Your task to perform on an android device: turn off smart reply in the gmail app Image 0: 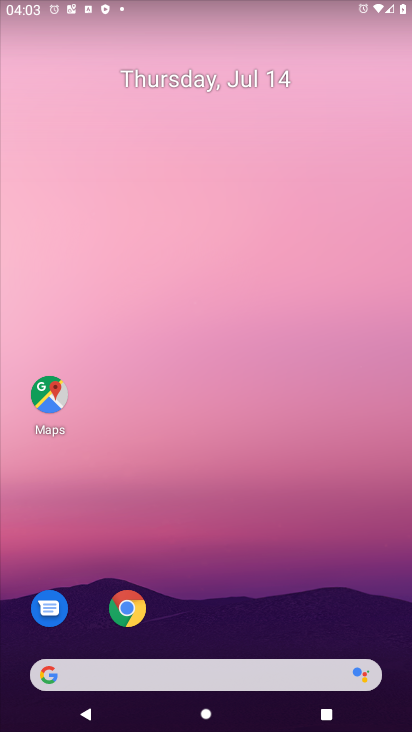
Step 0: drag from (397, 635) to (358, 90)
Your task to perform on an android device: turn off smart reply in the gmail app Image 1: 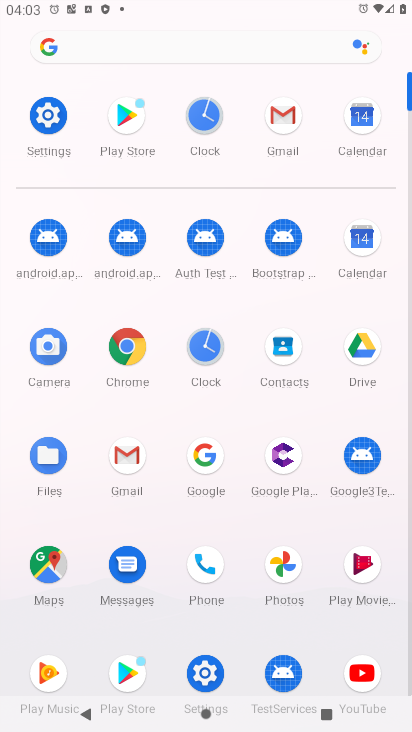
Step 1: click (123, 451)
Your task to perform on an android device: turn off smart reply in the gmail app Image 2: 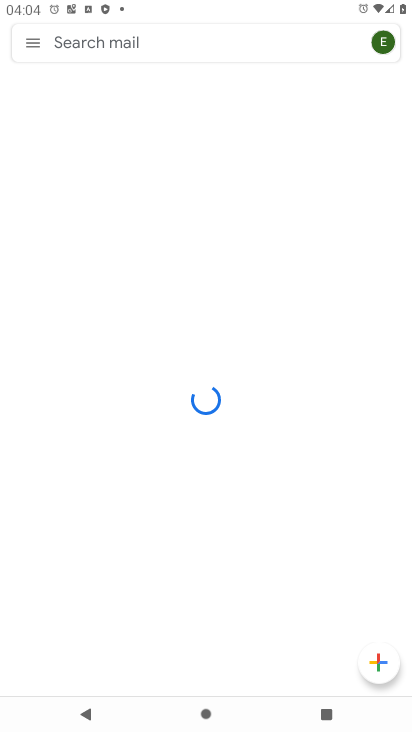
Step 2: click (30, 46)
Your task to perform on an android device: turn off smart reply in the gmail app Image 3: 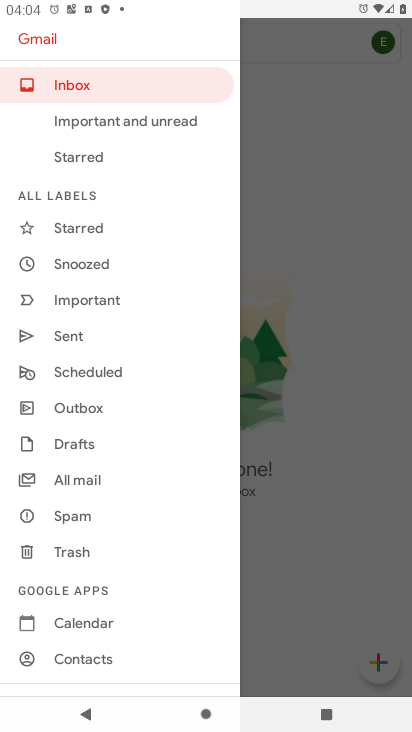
Step 3: drag from (161, 652) to (166, 392)
Your task to perform on an android device: turn off smart reply in the gmail app Image 4: 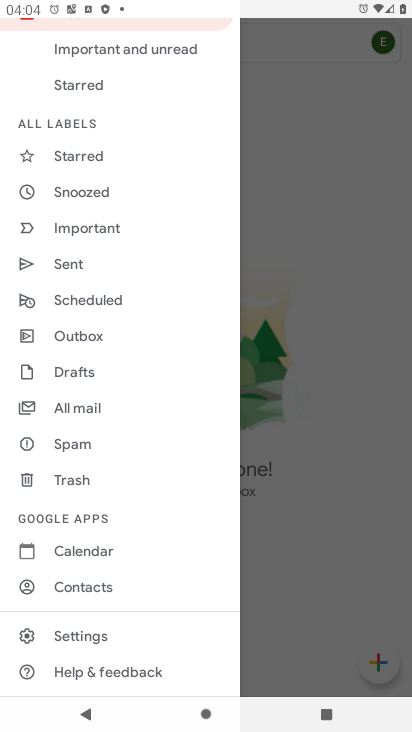
Step 4: click (78, 629)
Your task to perform on an android device: turn off smart reply in the gmail app Image 5: 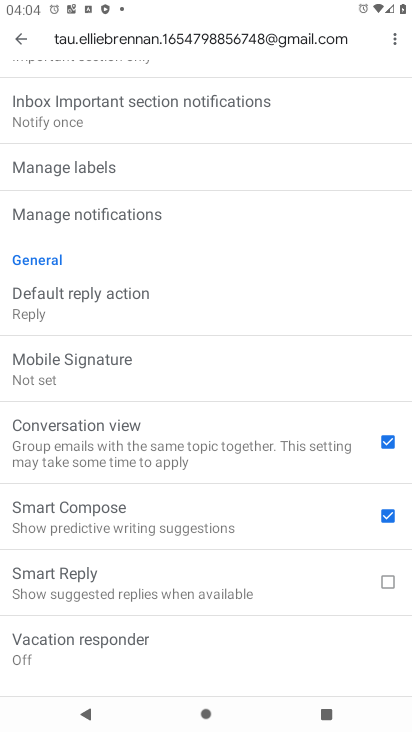
Step 5: task complete